Your task to perform on an android device: open wifi settings Image 0: 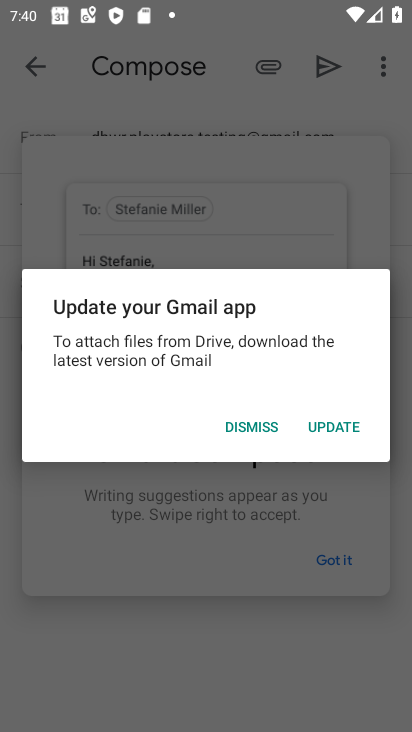
Step 0: press home button
Your task to perform on an android device: open wifi settings Image 1: 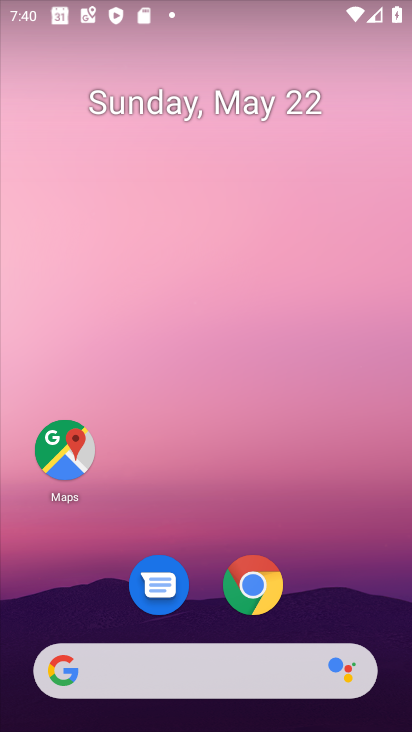
Step 1: drag from (218, 504) to (241, 26)
Your task to perform on an android device: open wifi settings Image 2: 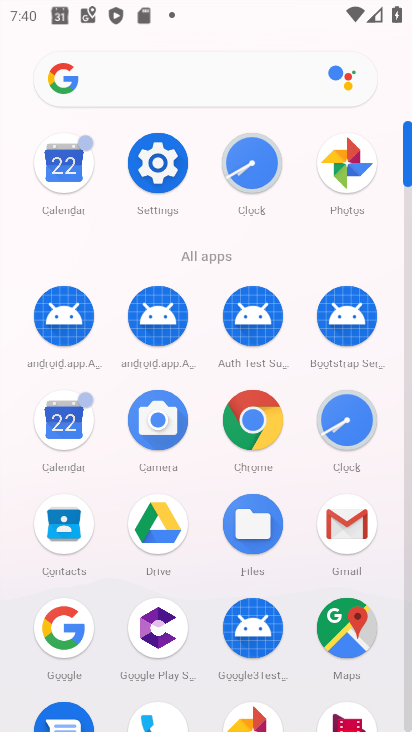
Step 2: click (165, 152)
Your task to perform on an android device: open wifi settings Image 3: 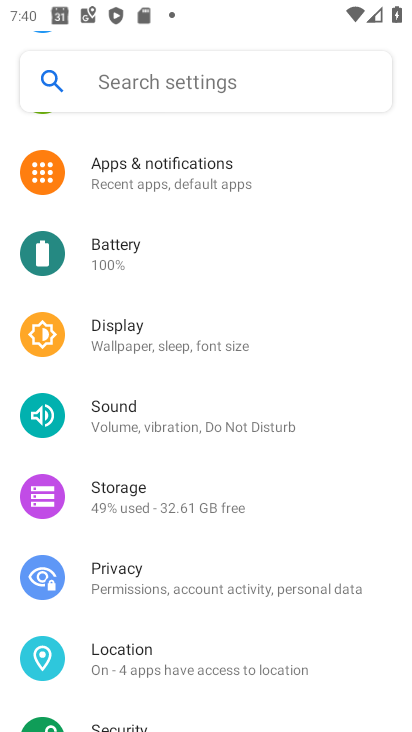
Step 3: drag from (168, 241) to (196, 613)
Your task to perform on an android device: open wifi settings Image 4: 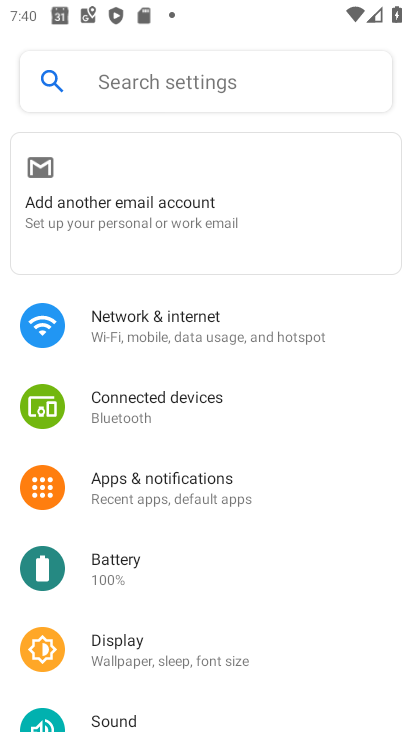
Step 4: click (239, 321)
Your task to perform on an android device: open wifi settings Image 5: 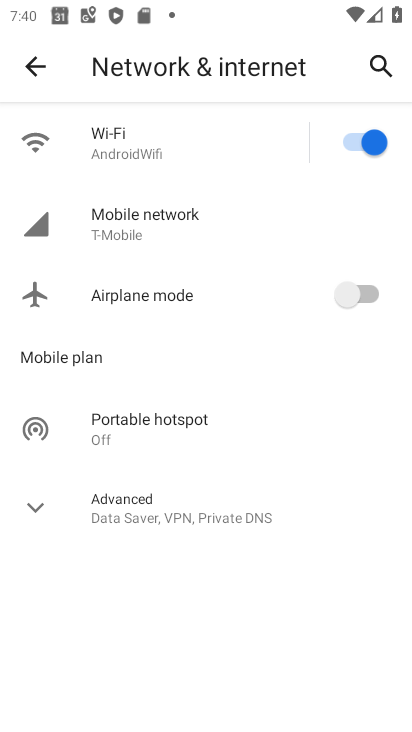
Step 5: click (170, 124)
Your task to perform on an android device: open wifi settings Image 6: 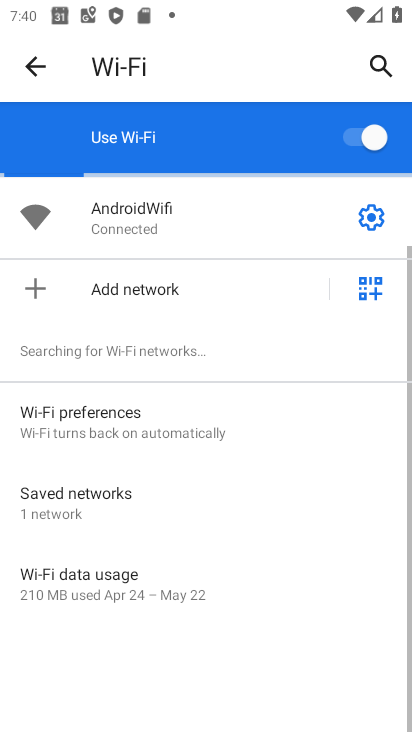
Step 6: task complete